Your task to perform on an android device: turn off airplane mode Image 0: 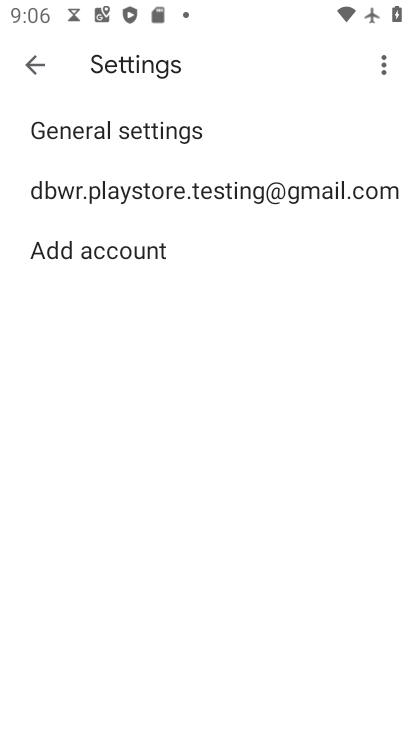
Step 0: press back button
Your task to perform on an android device: turn off airplane mode Image 1: 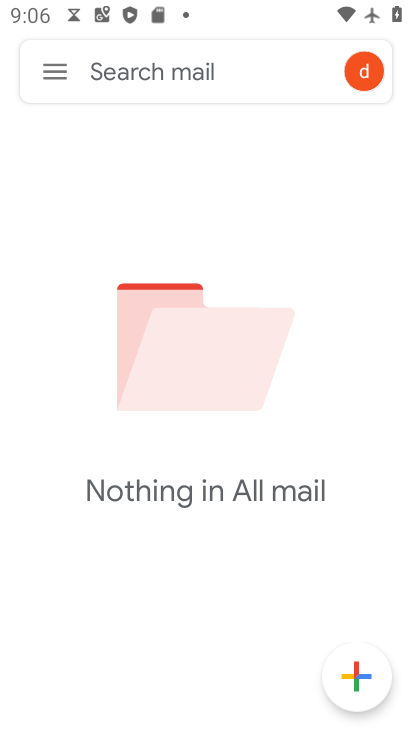
Step 1: press home button
Your task to perform on an android device: turn off airplane mode Image 2: 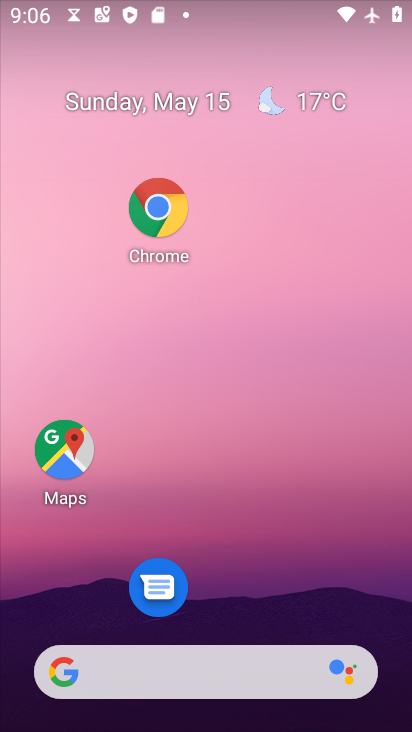
Step 2: drag from (211, 510) to (114, 21)
Your task to perform on an android device: turn off airplane mode Image 3: 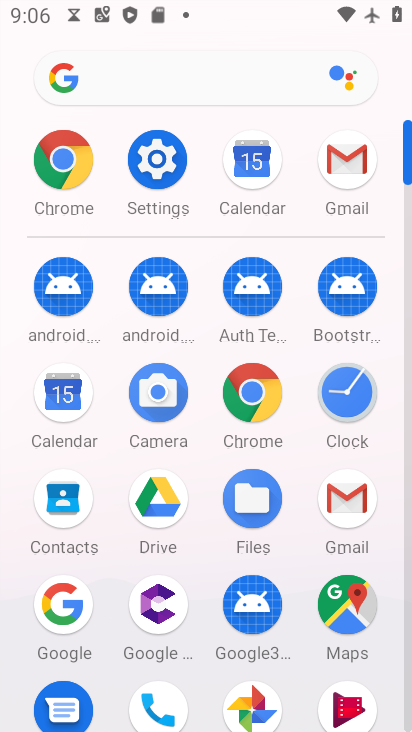
Step 3: click (157, 153)
Your task to perform on an android device: turn off airplane mode Image 4: 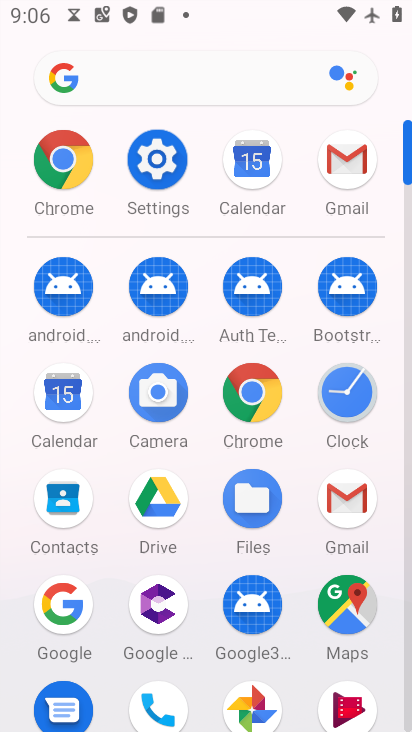
Step 4: click (157, 153)
Your task to perform on an android device: turn off airplane mode Image 5: 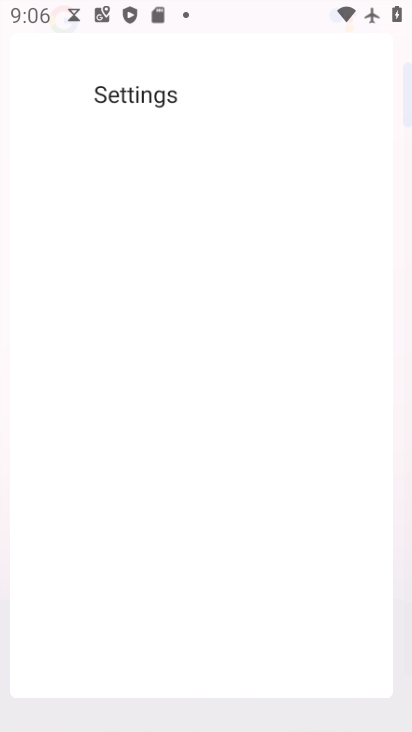
Step 5: click (157, 153)
Your task to perform on an android device: turn off airplane mode Image 6: 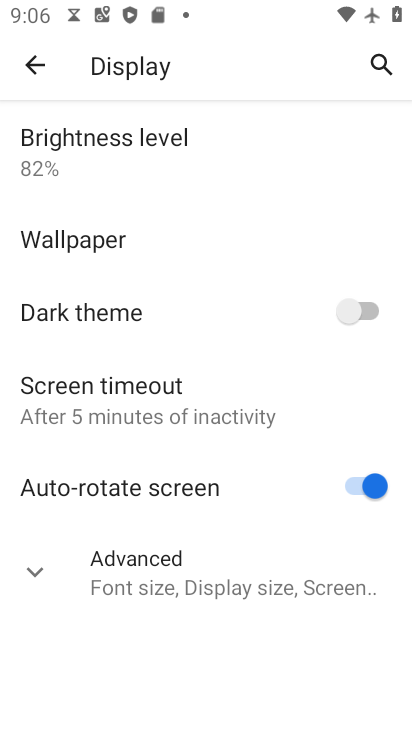
Step 6: click (37, 74)
Your task to perform on an android device: turn off airplane mode Image 7: 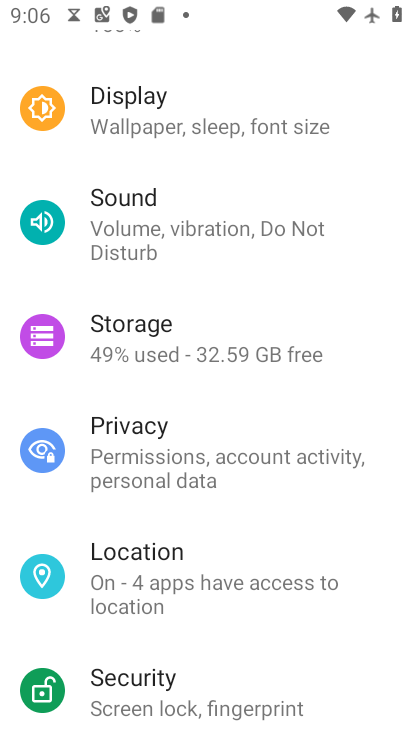
Step 7: drag from (229, 172) to (225, 688)
Your task to perform on an android device: turn off airplane mode Image 8: 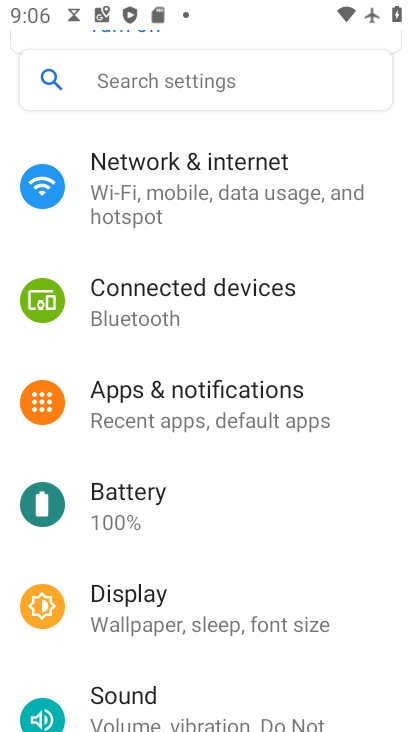
Step 8: click (166, 185)
Your task to perform on an android device: turn off airplane mode Image 9: 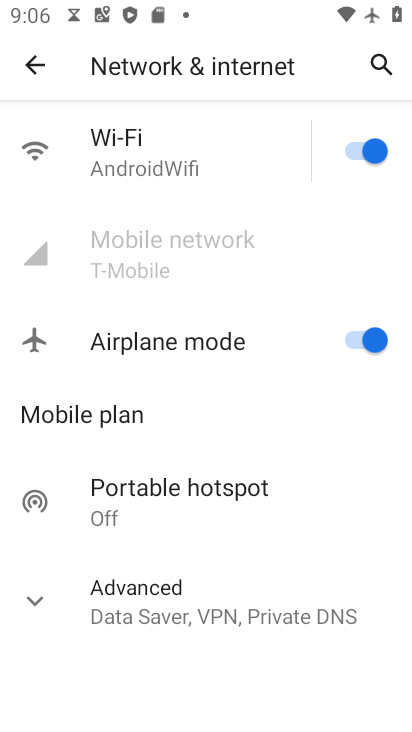
Step 9: click (360, 344)
Your task to perform on an android device: turn off airplane mode Image 10: 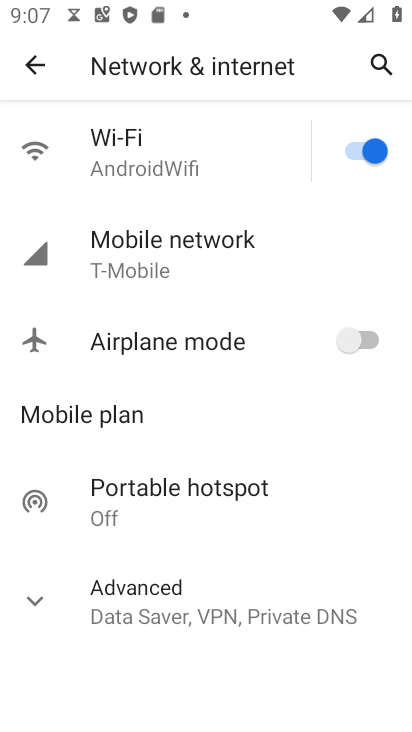
Step 10: task complete